Your task to perform on an android device: choose inbox layout in the gmail app Image 0: 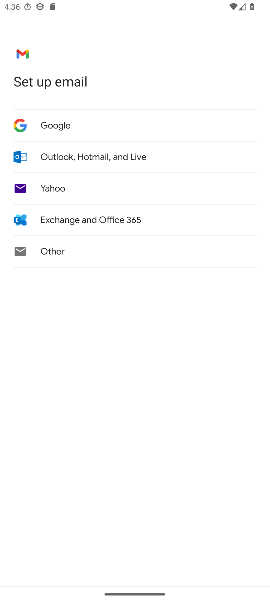
Step 0: press home button
Your task to perform on an android device: choose inbox layout in the gmail app Image 1: 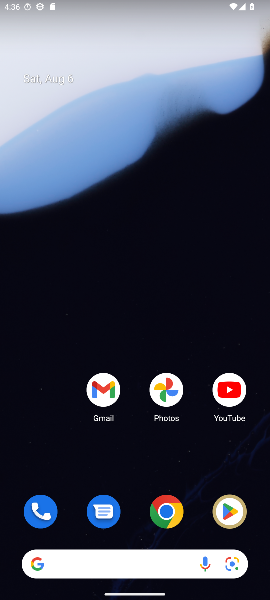
Step 1: click (109, 412)
Your task to perform on an android device: choose inbox layout in the gmail app Image 2: 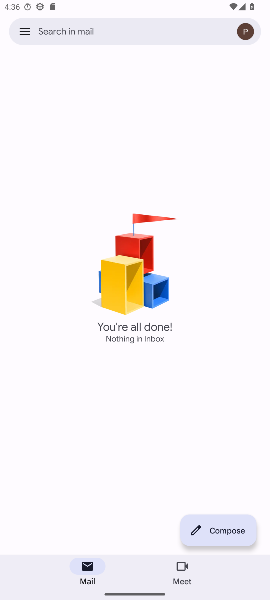
Step 2: click (25, 27)
Your task to perform on an android device: choose inbox layout in the gmail app Image 3: 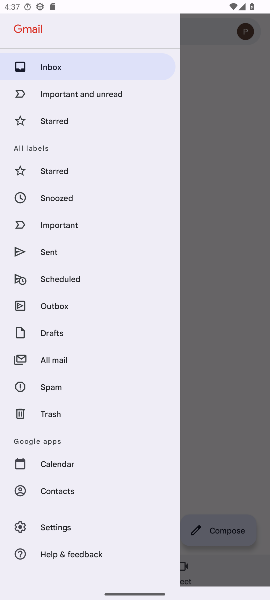
Step 3: click (63, 528)
Your task to perform on an android device: choose inbox layout in the gmail app Image 4: 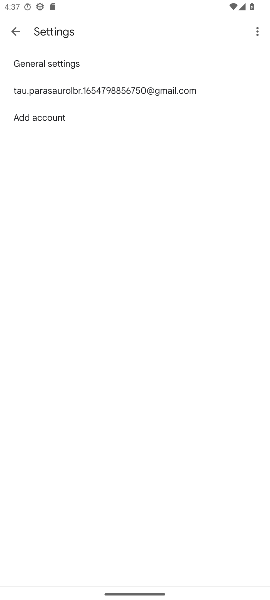
Step 4: click (86, 94)
Your task to perform on an android device: choose inbox layout in the gmail app Image 5: 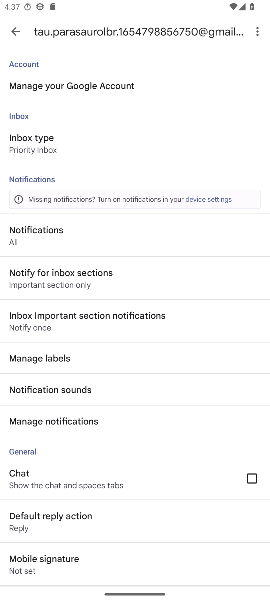
Step 5: click (49, 143)
Your task to perform on an android device: choose inbox layout in the gmail app Image 6: 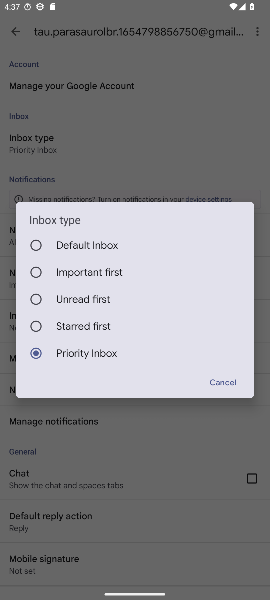
Step 6: click (100, 247)
Your task to perform on an android device: choose inbox layout in the gmail app Image 7: 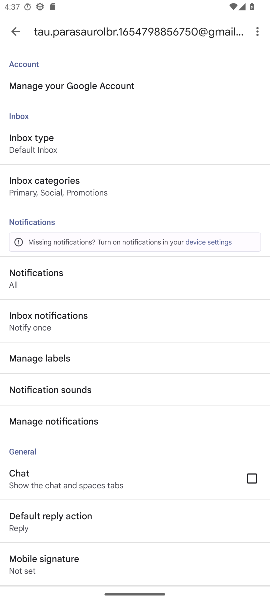
Step 7: task complete